Your task to perform on an android device: Go to Reddit.com Image 0: 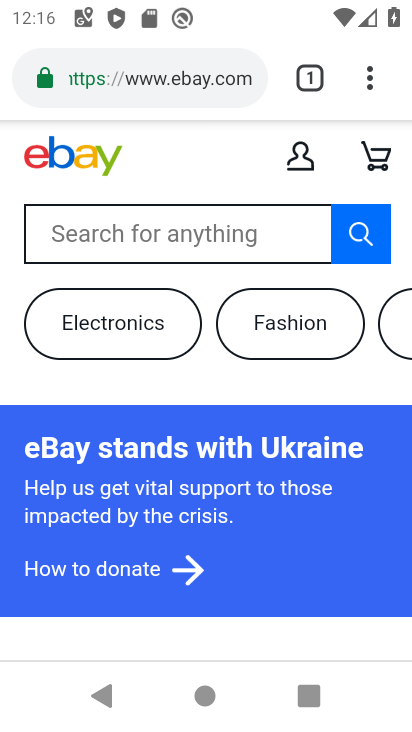
Step 0: click (199, 82)
Your task to perform on an android device: Go to Reddit.com Image 1: 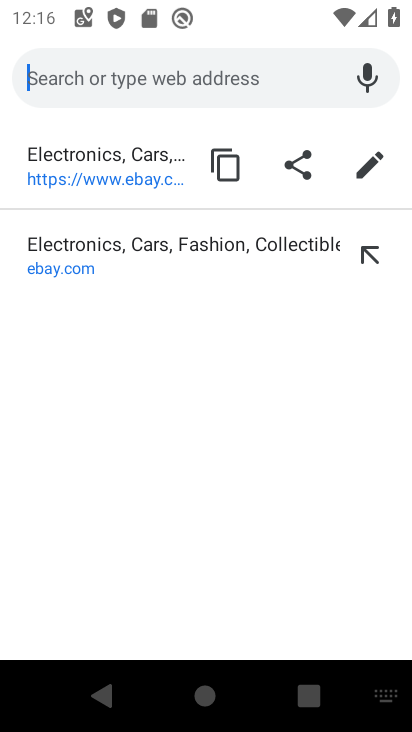
Step 1: type "reddit"
Your task to perform on an android device: Go to Reddit.com Image 2: 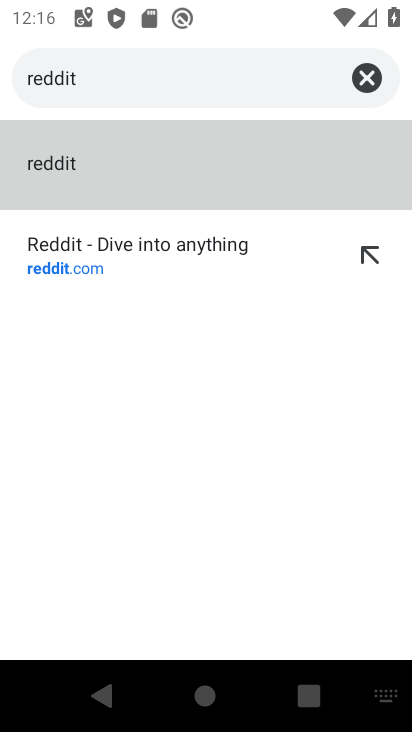
Step 2: click (165, 267)
Your task to perform on an android device: Go to Reddit.com Image 3: 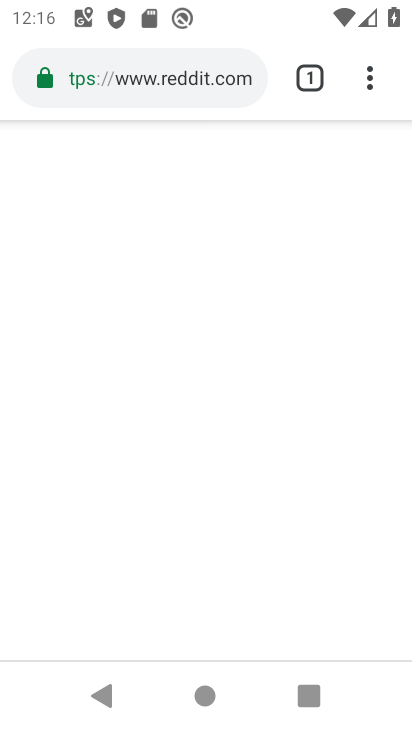
Step 3: task complete